Your task to perform on an android device: toggle wifi Image 0: 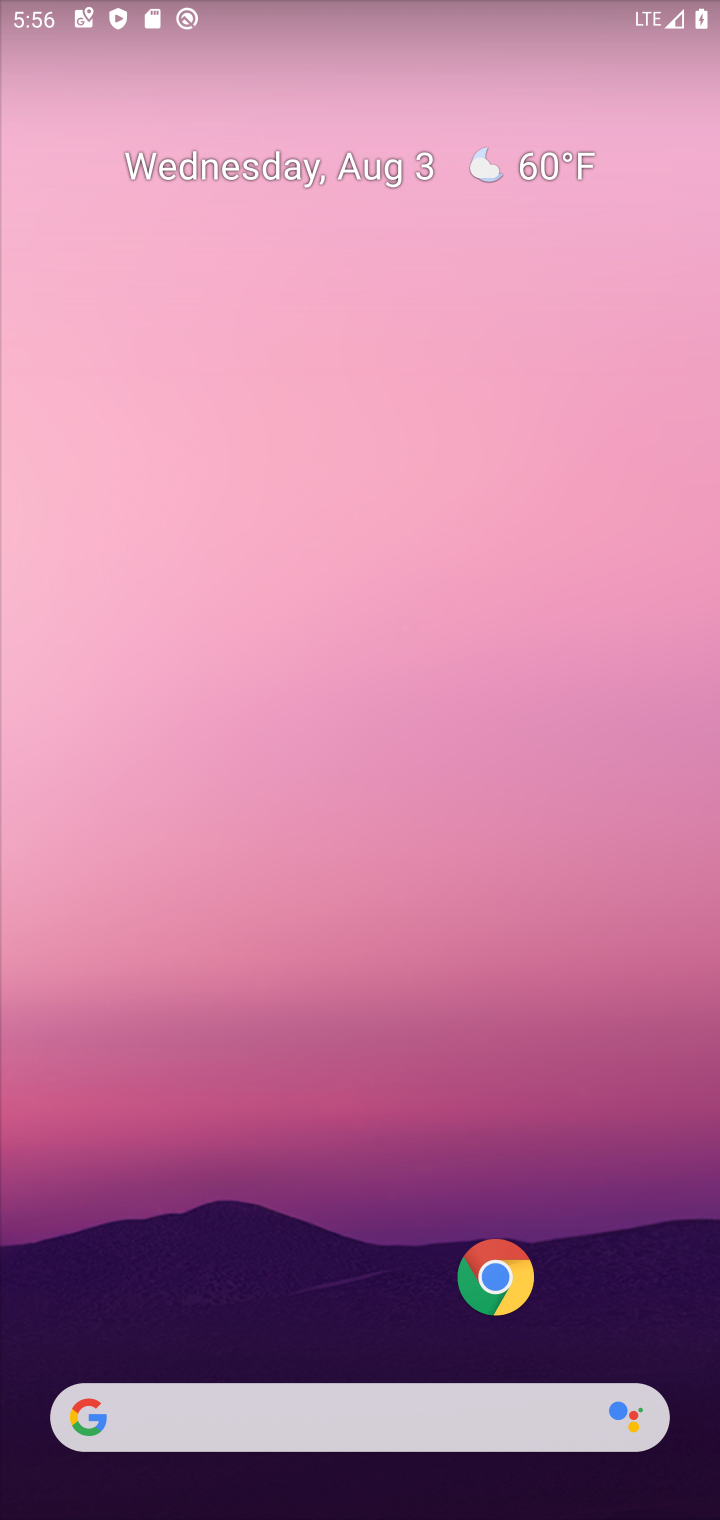
Step 0: drag from (51, 10) to (478, 1343)
Your task to perform on an android device: toggle wifi Image 1: 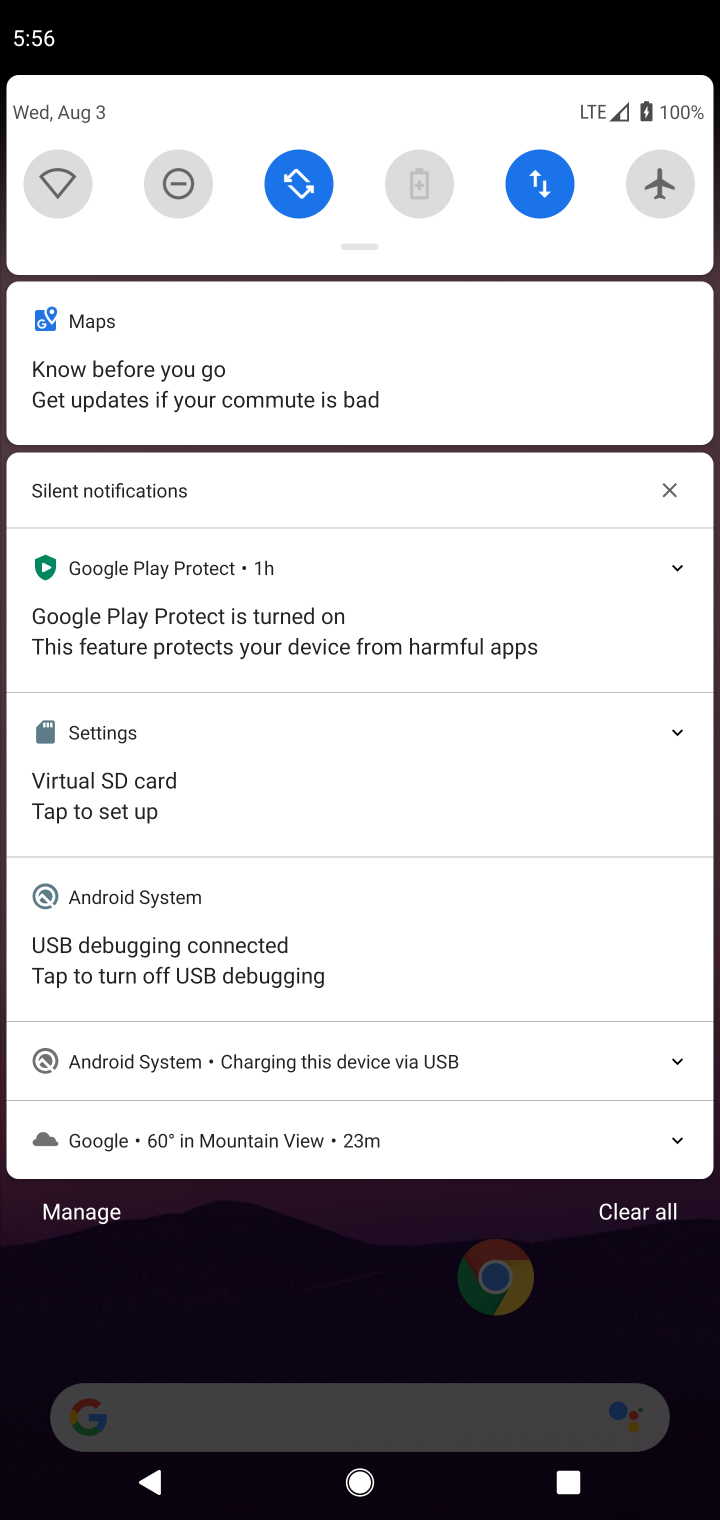
Step 1: click (68, 177)
Your task to perform on an android device: toggle wifi Image 2: 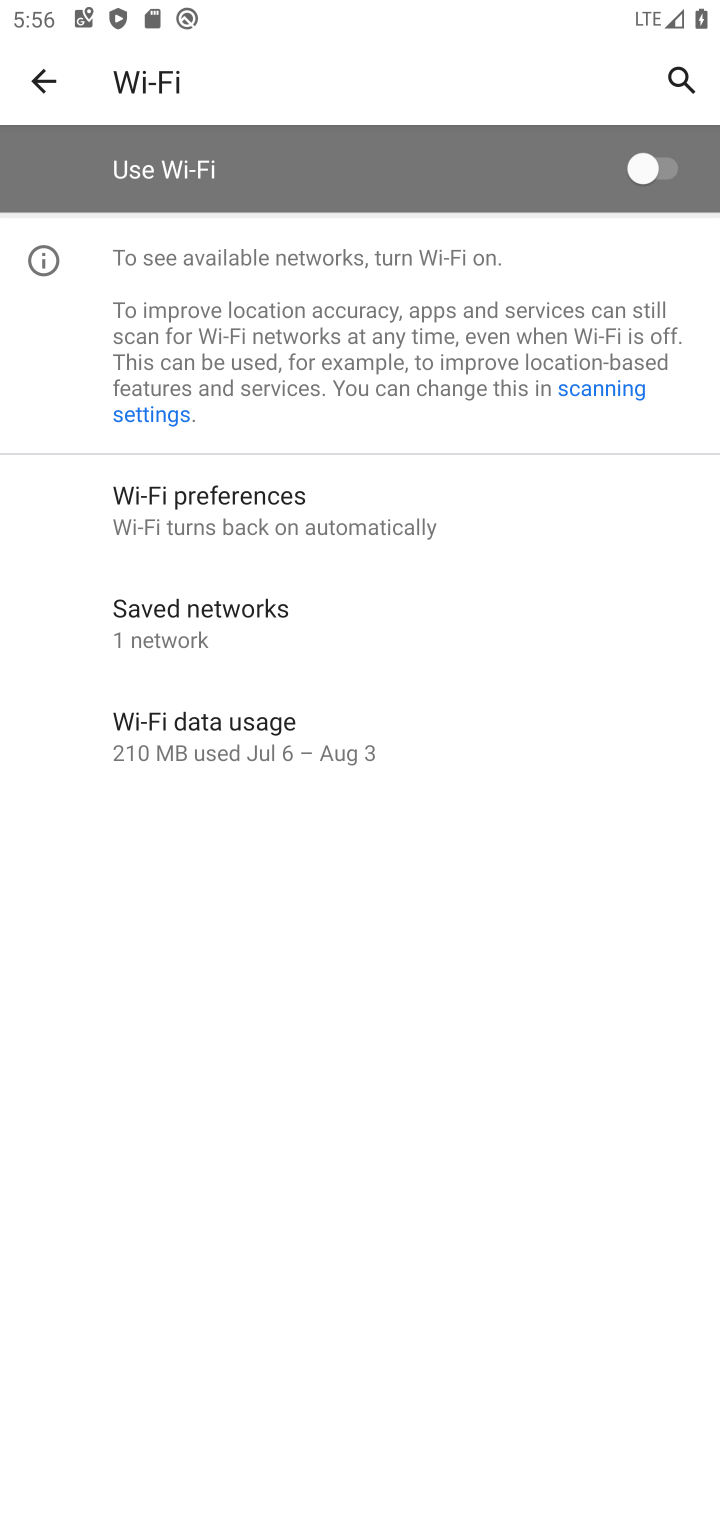
Step 2: click (641, 154)
Your task to perform on an android device: toggle wifi Image 3: 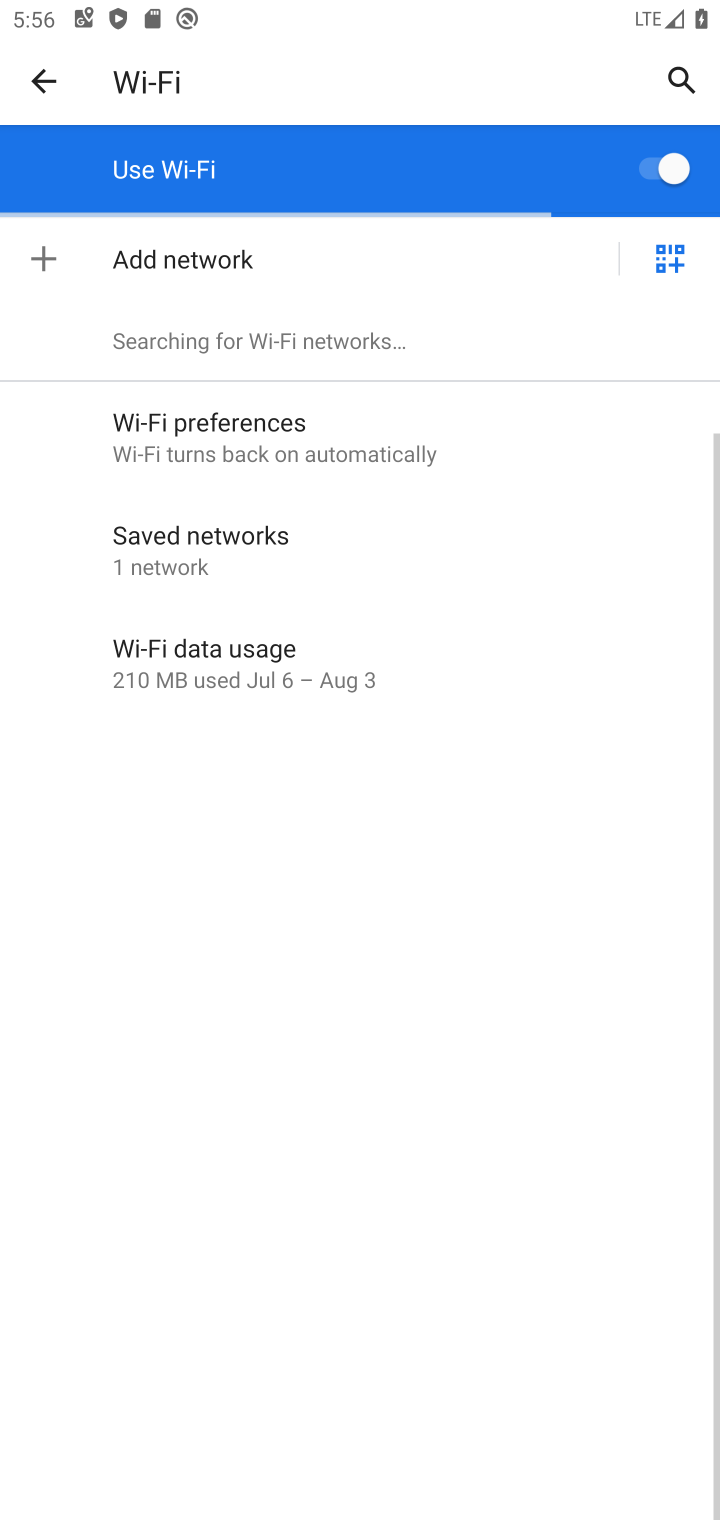
Step 3: task complete